Your task to perform on an android device: turn smart compose on in the gmail app Image 0: 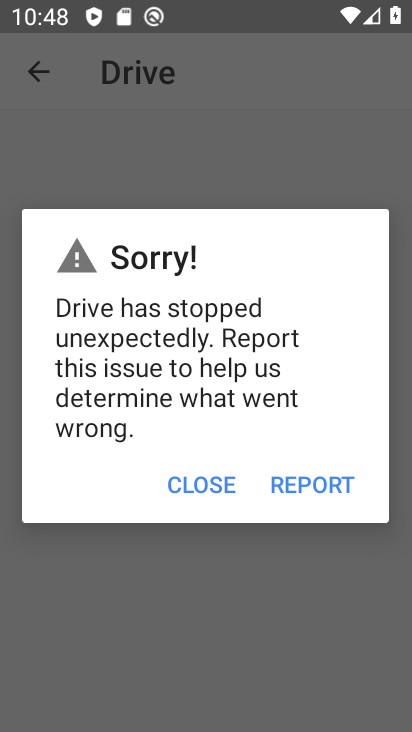
Step 0: press home button
Your task to perform on an android device: turn smart compose on in the gmail app Image 1: 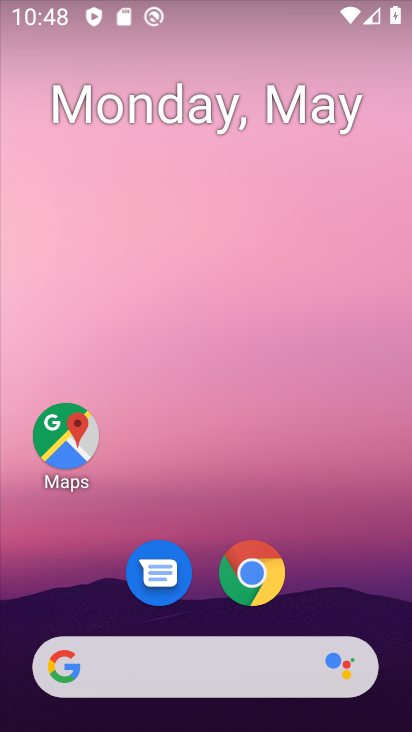
Step 1: drag from (337, 458) to (239, 55)
Your task to perform on an android device: turn smart compose on in the gmail app Image 2: 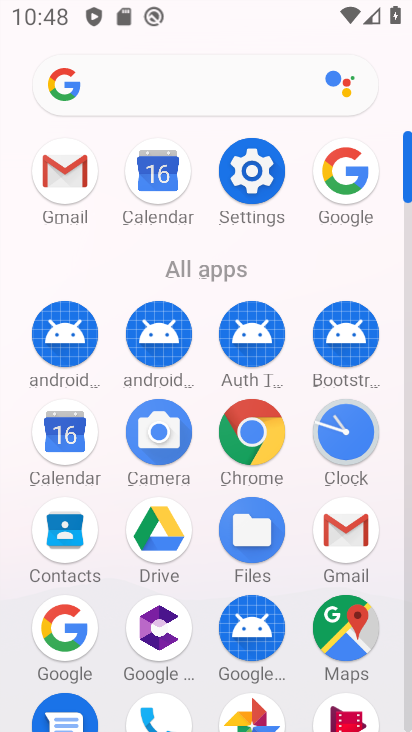
Step 2: click (348, 525)
Your task to perform on an android device: turn smart compose on in the gmail app Image 3: 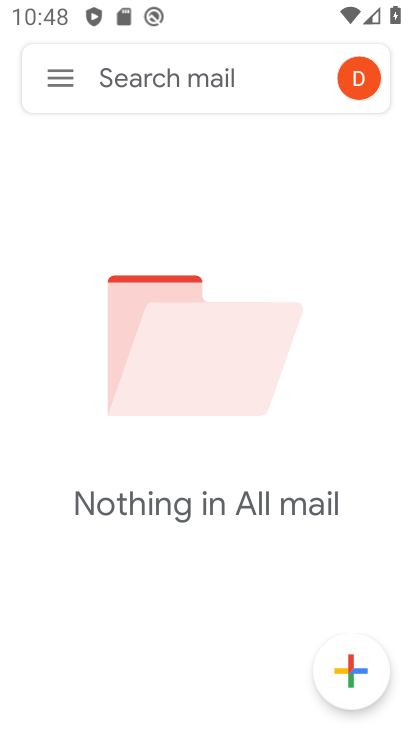
Step 3: click (54, 79)
Your task to perform on an android device: turn smart compose on in the gmail app Image 4: 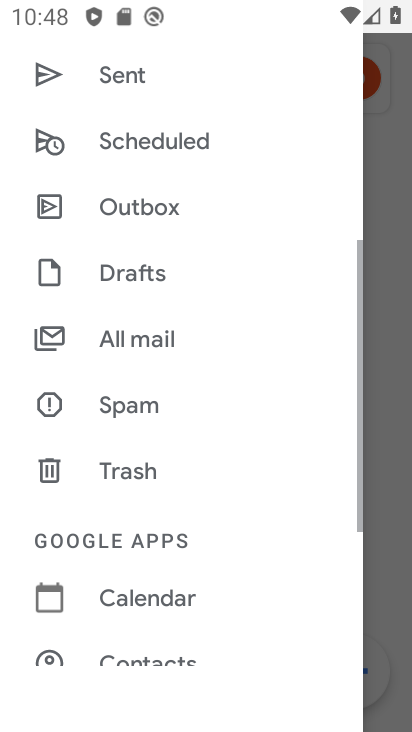
Step 4: drag from (260, 629) to (221, 125)
Your task to perform on an android device: turn smart compose on in the gmail app Image 5: 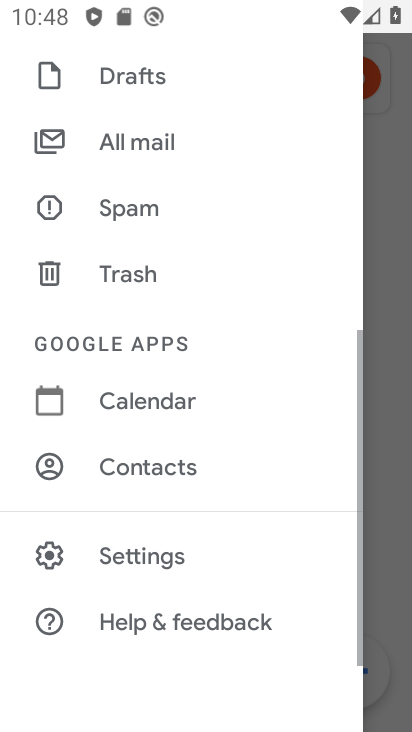
Step 5: click (215, 561)
Your task to perform on an android device: turn smart compose on in the gmail app Image 6: 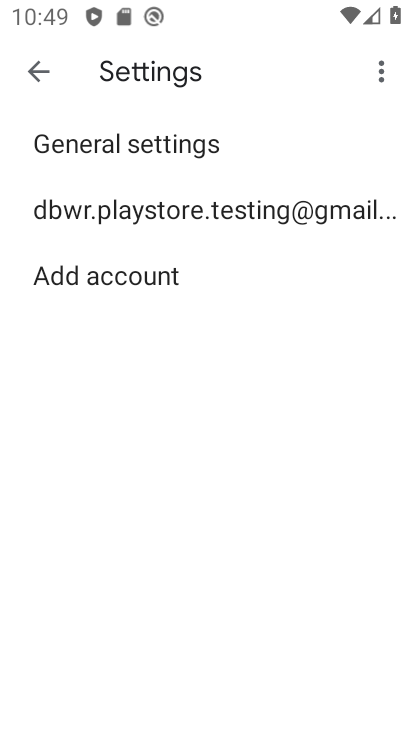
Step 6: click (222, 209)
Your task to perform on an android device: turn smart compose on in the gmail app Image 7: 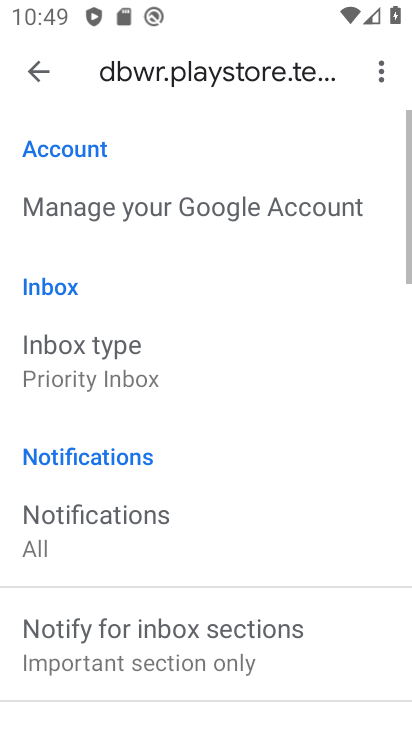
Step 7: task complete